Your task to perform on an android device: toggle improve location accuracy Image 0: 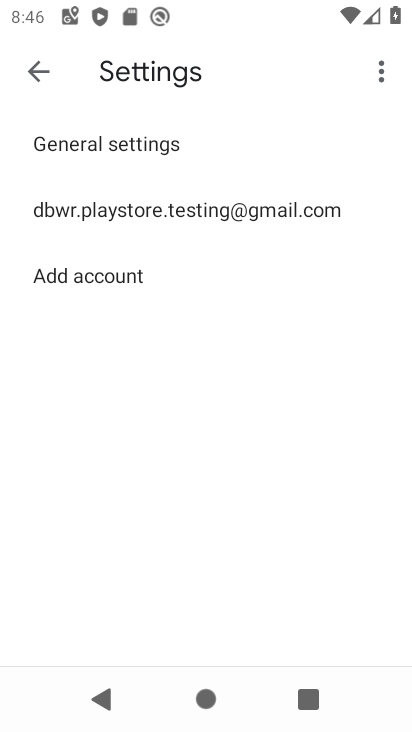
Step 0: press home button
Your task to perform on an android device: toggle improve location accuracy Image 1: 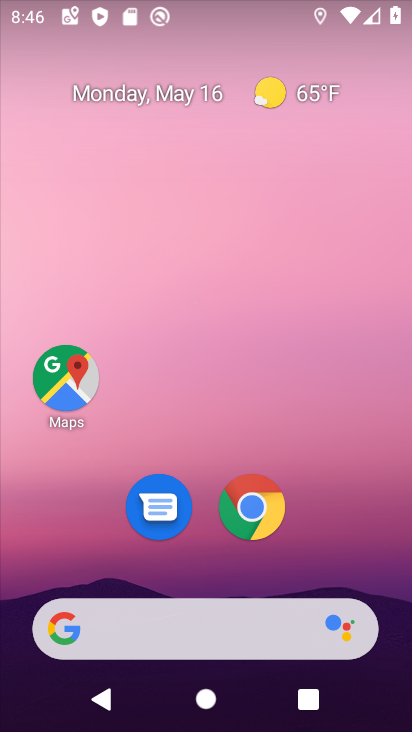
Step 1: drag from (205, 585) to (123, 44)
Your task to perform on an android device: toggle improve location accuracy Image 2: 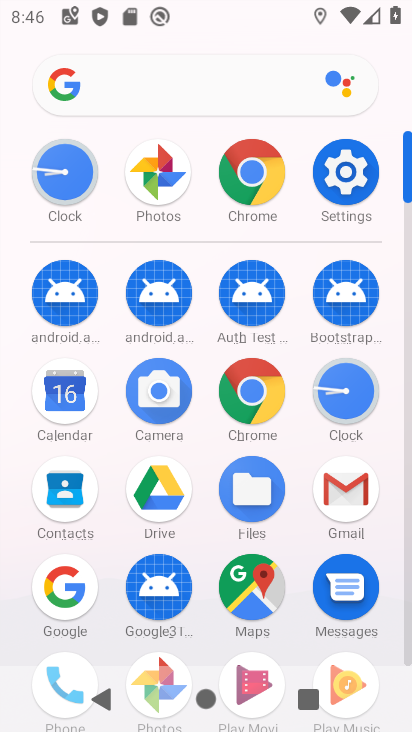
Step 2: click (345, 192)
Your task to perform on an android device: toggle improve location accuracy Image 3: 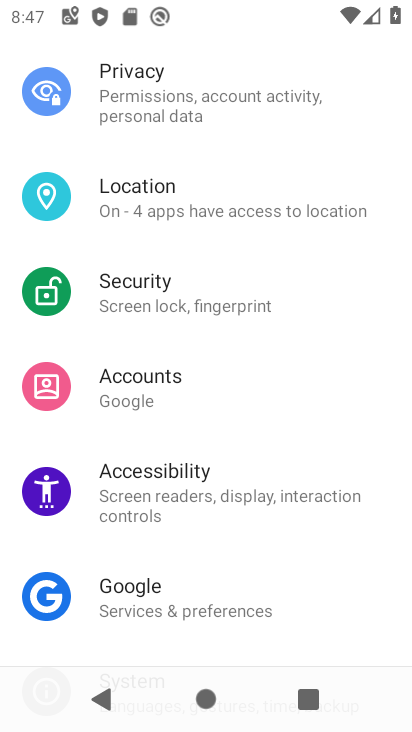
Step 3: click (310, 205)
Your task to perform on an android device: toggle improve location accuracy Image 4: 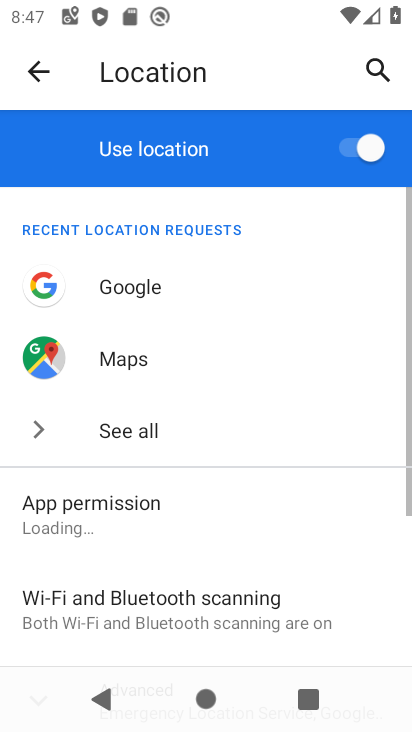
Step 4: drag from (160, 573) to (140, 166)
Your task to perform on an android device: toggle improve location accuracy Image 5: 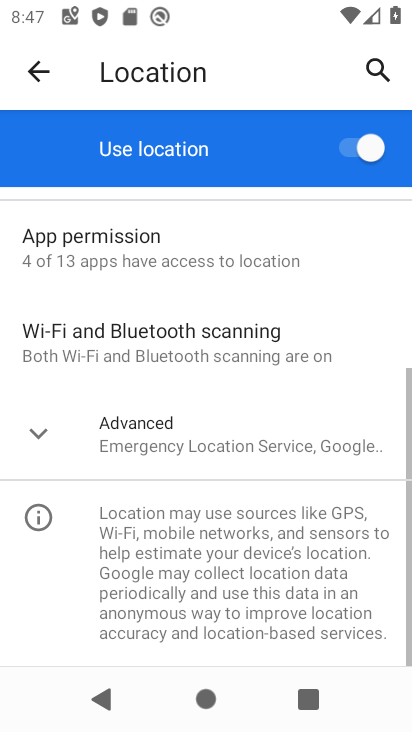
Step 5: click (155, 415)
Your task to perform on an android device: toggle improve location accuracy Image 6: 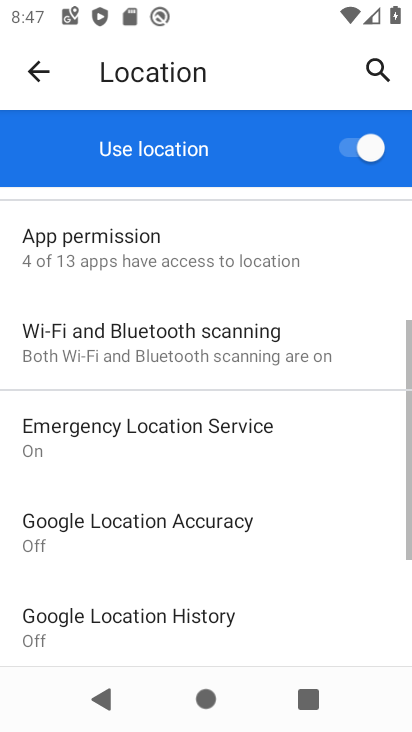
Step 6: click (156, 526)
Your task to perform on an android device: toggle improve location accuracy Image 7: 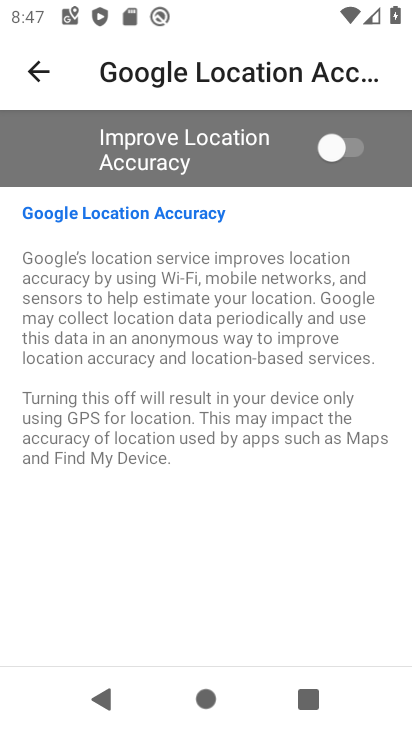
Step 7: click (340, 153)
Your task to perform on an android device: toggle improve location accuracy Image 8: 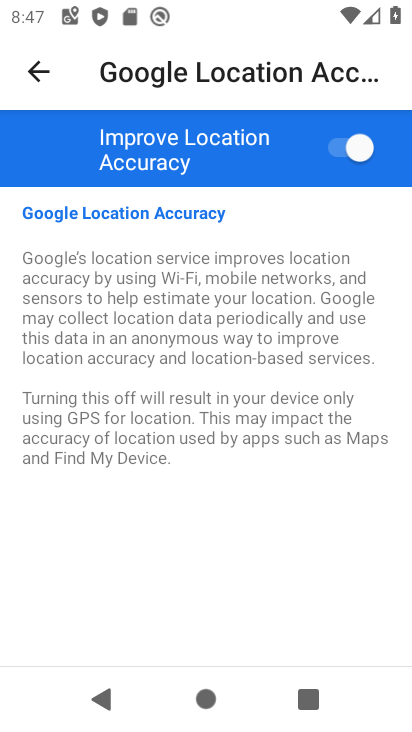
Step 8: task complete